Your task to perform on an android device: turn smart compose on in the gmail app Image 0: 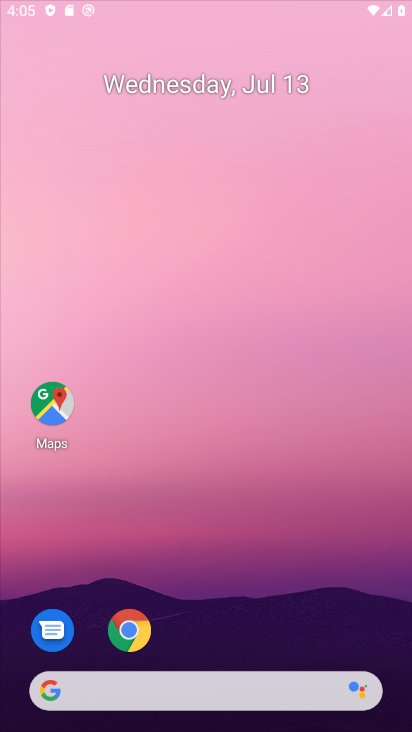
Step 0: press home button
Your task to perform on an android device: turn smart compose on in the gmail app Image 1: 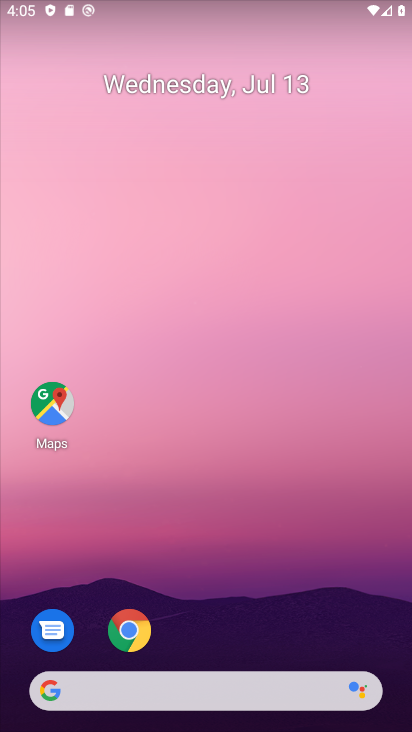
Step 1: drag from (253, 640) to (236, 249)
Your task to perform on an android device: turn smart compose on in the gmail app Image 2: 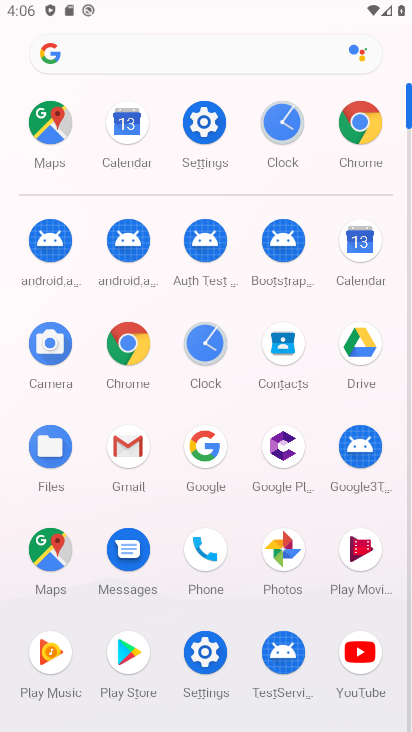
Step 2: click (130, 462)
Your task to perform on an android device: turn smart compose on in the gmail app Image 3: 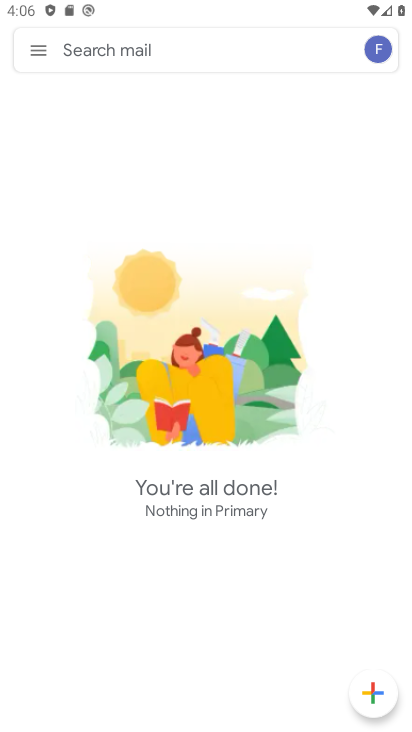
Step 3: click (35, 54)
Your task to perform on an android device: turn smart compose on in the gmail app Image 4: 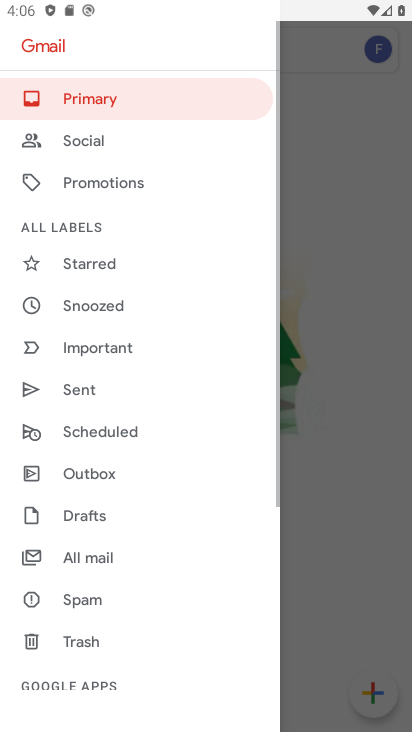
Step 4: drag from (166, 609) to (111, 173)
Your task to perform on an android device: turn smart compose on in the gmail app Image 5: 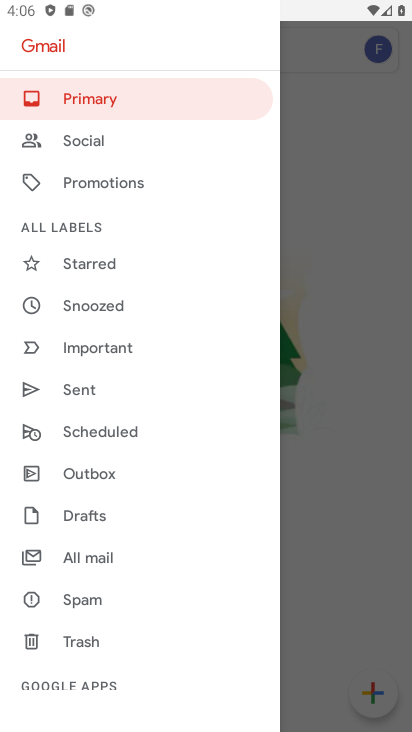
Step 5: drag from (161, 578) to (120, 55)
Your task to perform on an android device: turn smart compose on in the gmail app Image 6: 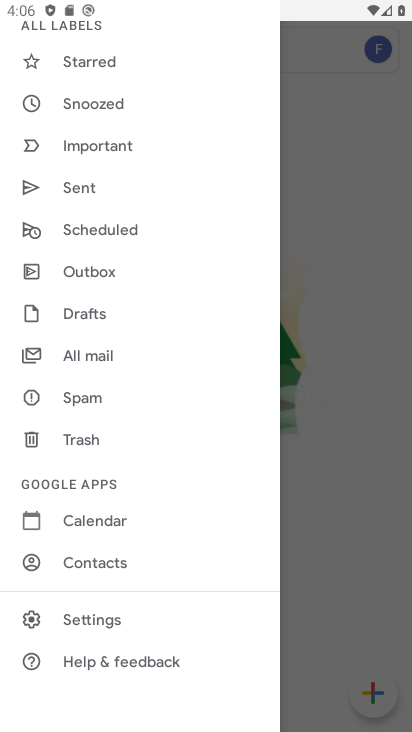
Step 6: click (79, 627)
Your task to perform on an android device: turn smart compose on in the gmail app Image 7: 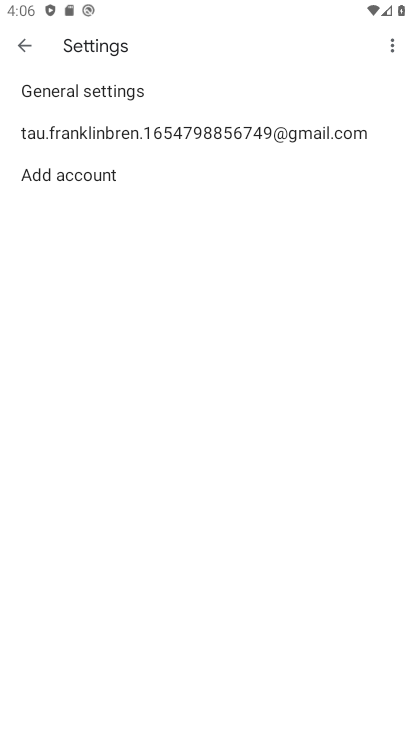
Step 7: click (136, 136)
Your task to perform on an android device: turn smart compose on in the gmail app Image 8: 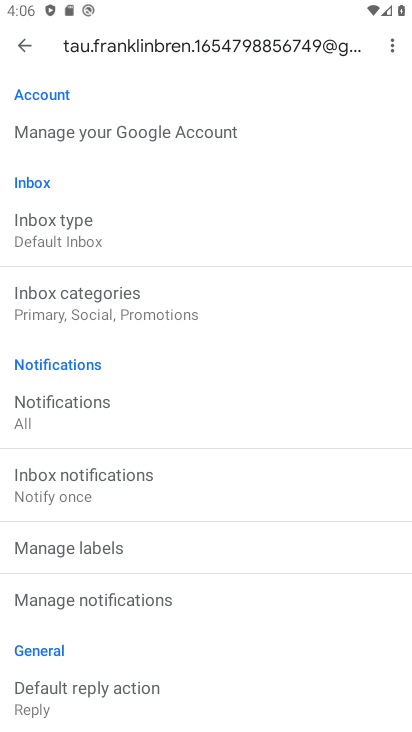
Step 8: task complete